Your task to perform on an android device: find photos in the google photos app Image 0: 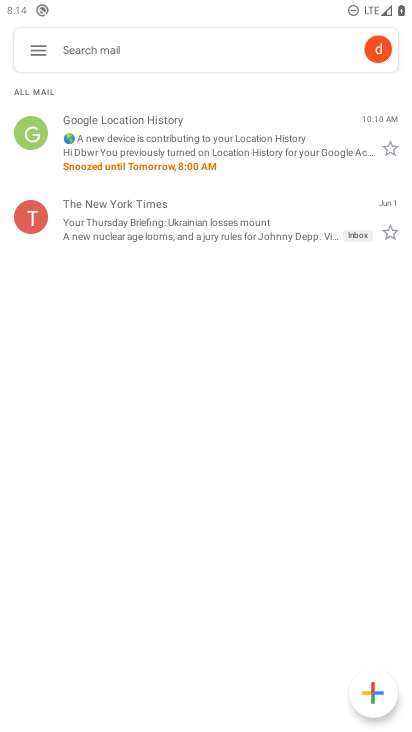
Step 0: press home button
Your task to perform on an android device: find photos in the google photos app Image 1: 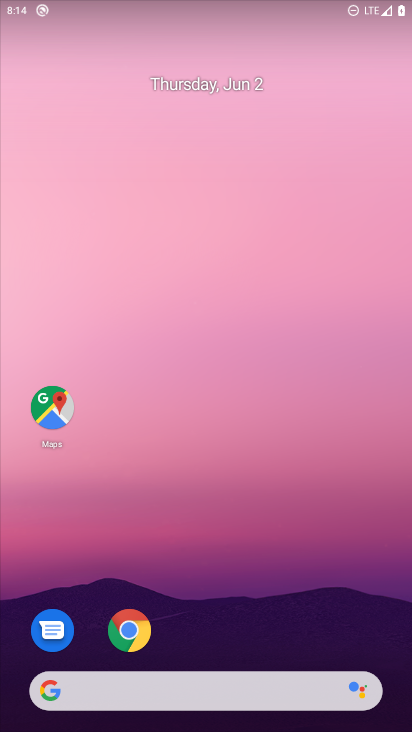
Step 1: drag from (108, 720) to (148, 16)
Your task to perform on an android device: find photos in the google photos app Image 2: 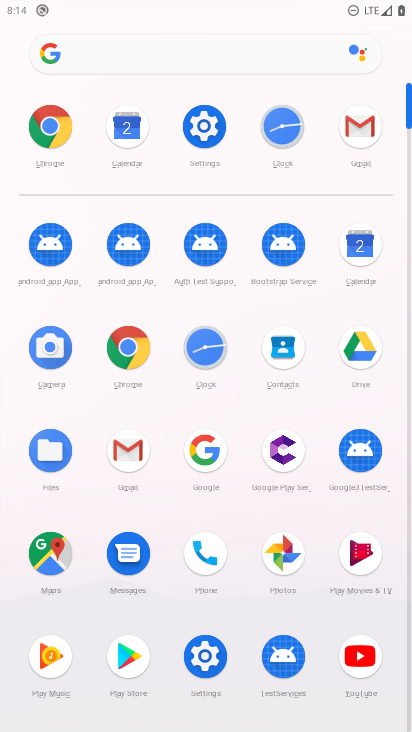
Step 2: click (277, 555)
Your task to perform on an android device: find photos in the google photos app Image 3: 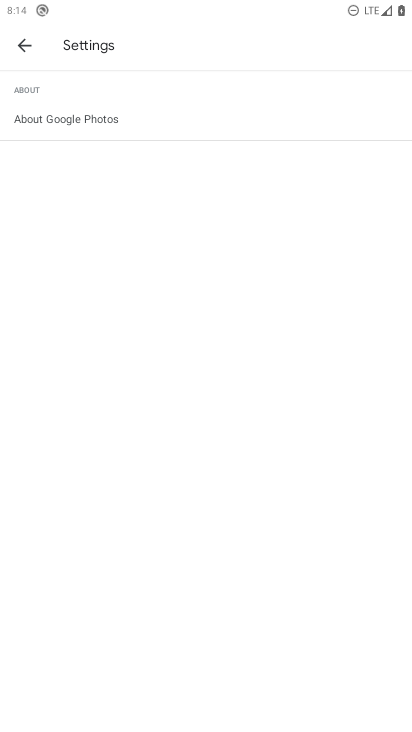
Step 3: click (22, 48)
Your task to perform on an android device: find photos in the google photos app Image 4: 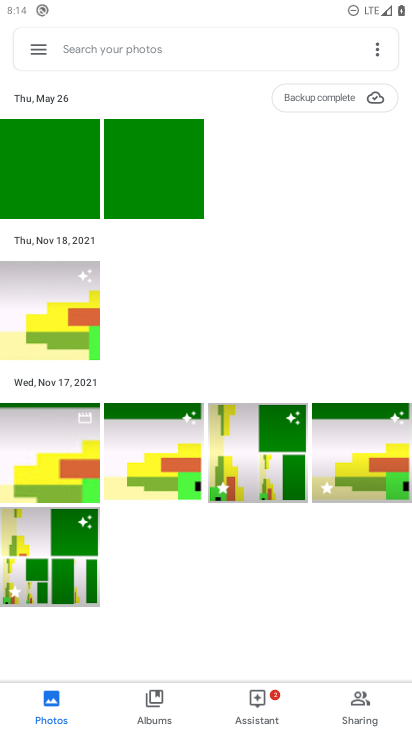
Step 4: click (53, 197)
Your task to perform on an android device: find photos in the google photos app Image 5: 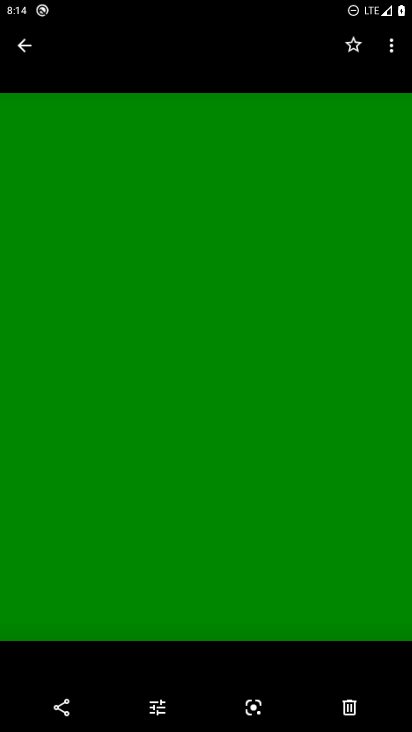
Step 5: click (20, 47)
Your task to perform on an android device: find photos in the google photos app Image 6: 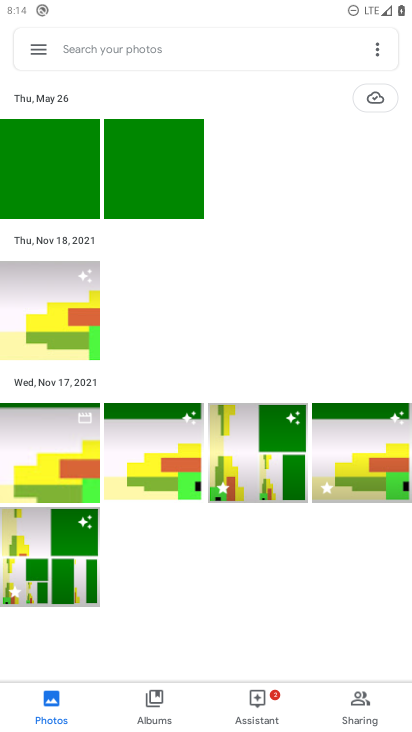
Step 6: task complete